Your task to perform on an android device: find which apps use the phone's location Image 0: 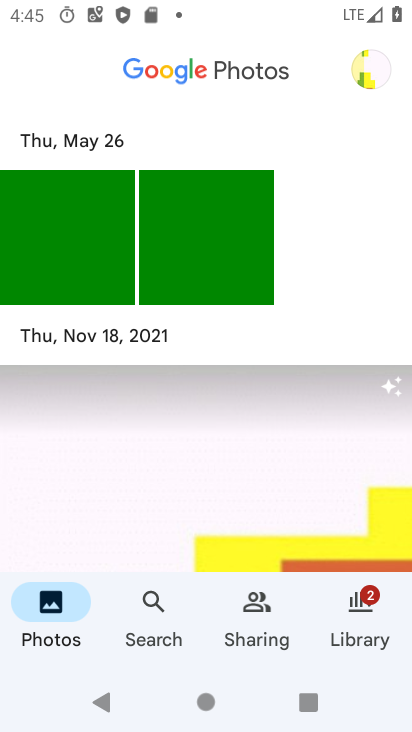
Step 0: press home button
Your task to perform on an android device: find which apps use the phone's location Image 1: 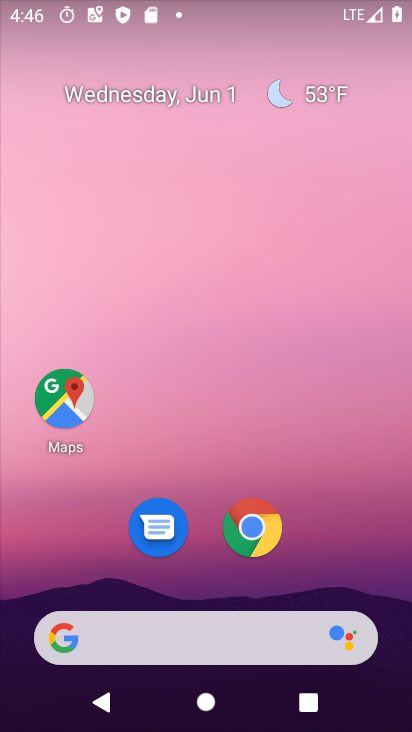
Step 1: drag from (274, 590) to (346, 38)
Your task to perform on an android device: find which apps use the phone's location Image 2: 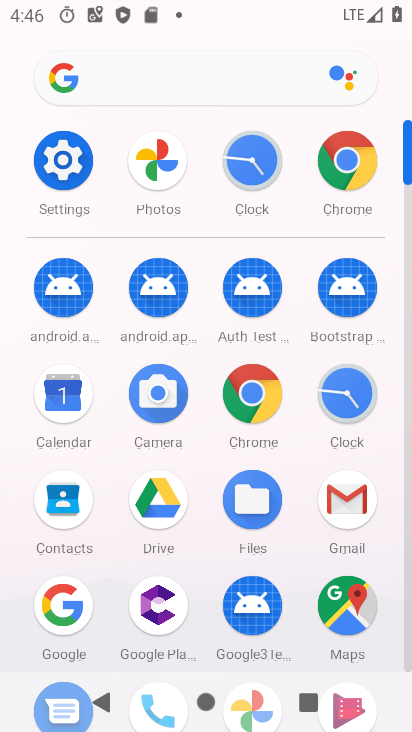
Step 2: click (55, 157)
Your task to perform on an android device: find which apps use the phone's location Image 3: 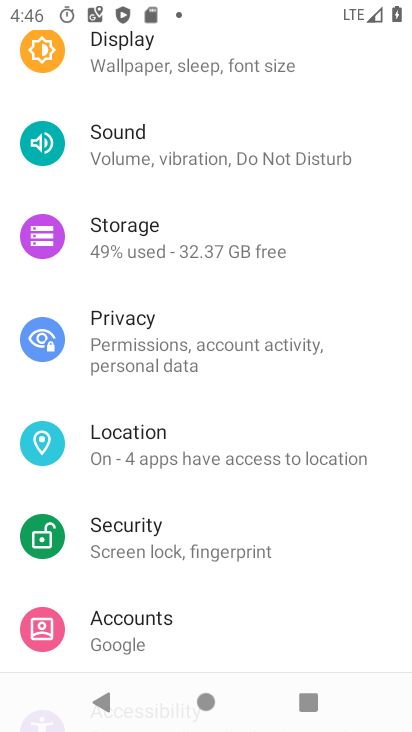
Step 3: click (162, 449)
Your task to perform on an android device: find which apps use the phone's location Image 4: 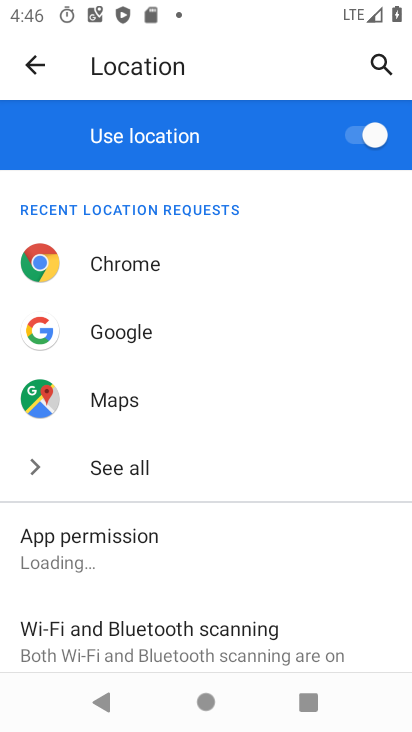
Step 4: drag from (222, 585) to (295, 329)
Your task to perform on an android device: find which apps use the phone's location Image 5: 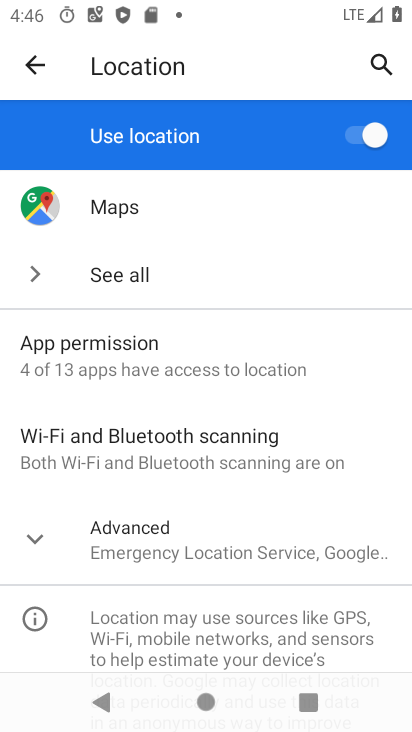
Step 5: click (108, 360)
Your task to perform on an android device: find which apps use the phone's location Image 6: 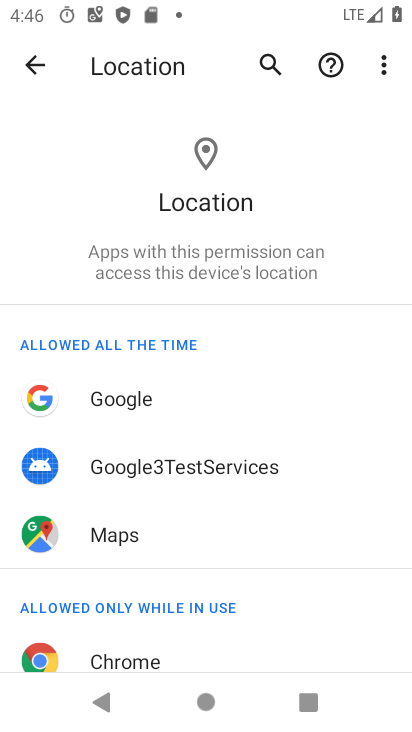
Step 6: drag from (270, 584) to (346, 209)
Your task to perform on an android device: find which apps use the phone's location Image 7: 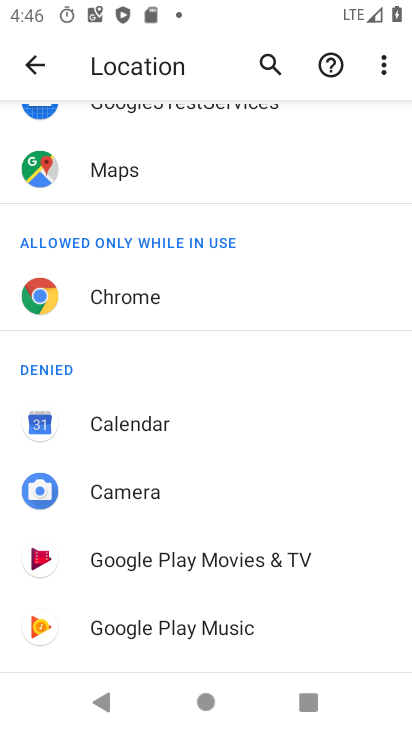
Step 7: drag from (256, 584) to (351, 267)
Your task to perform on an android device: find which apps use the phone's location Image 8: 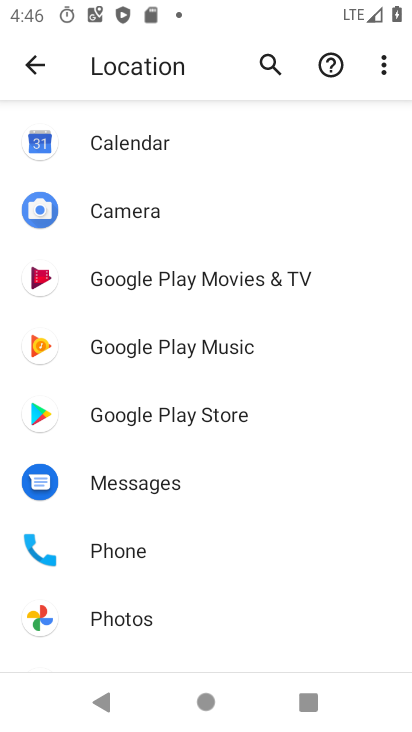
Step 8: click (108, 550)
Your task to perform on an android device: find which apps use the phone's location Image 9: 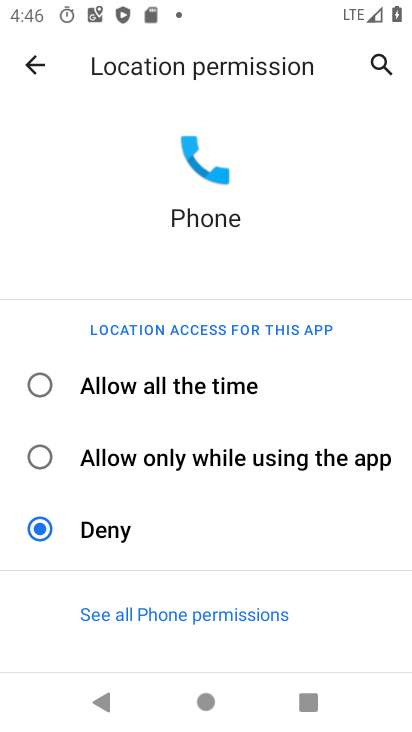
Step 9: task complete